Your task to perform on an android device: Open calendar and show me the third week of next month Image 0: 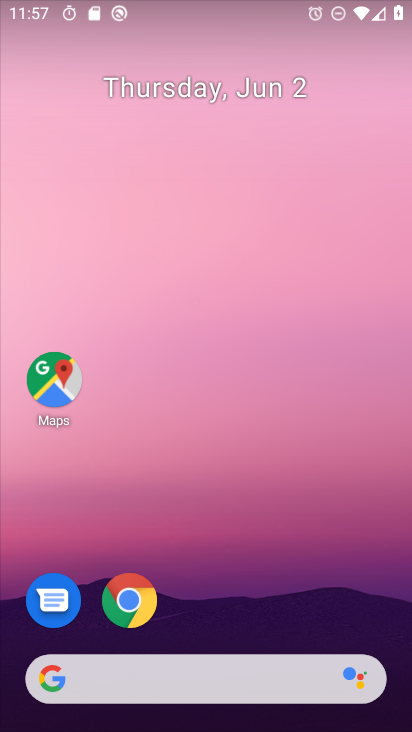
Step 0: drag from (246, 566) to (200, 96)
Your task to perform on an android device: Open calendar and show me the third week of next month Image 1: 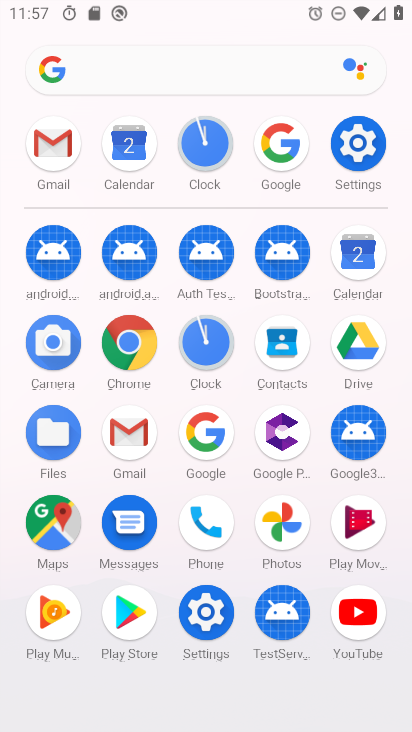
Step 1: click (350, 268)
Your task to perform on an android device: Open calendar and show me the third week of next month Image 2: 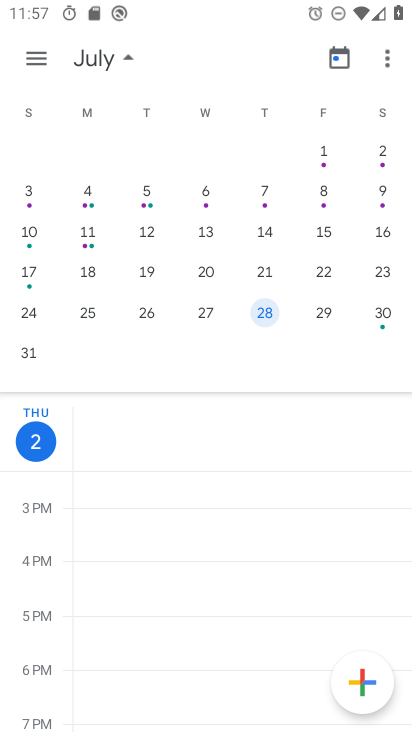
Step 2: drag from (329, 355) to (40, 324)
Your task to perform on an android device: Open calendar and show me the third week of next month Image 3: 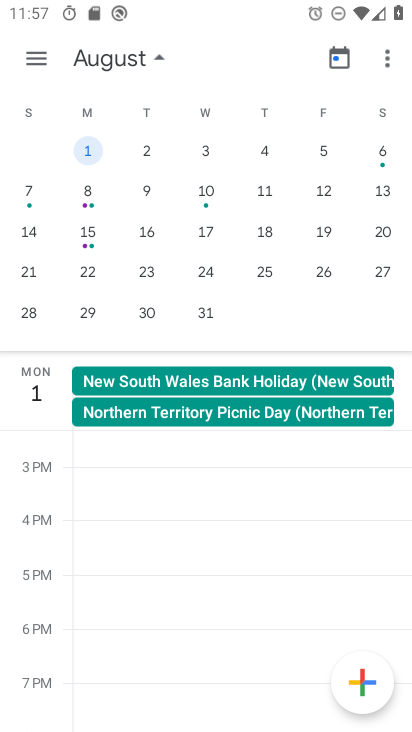
Step 3: drag from (58, 313) to (399, 300)
Your task to perform on an android device: Open calendar and show me the third week of next month Image 4: 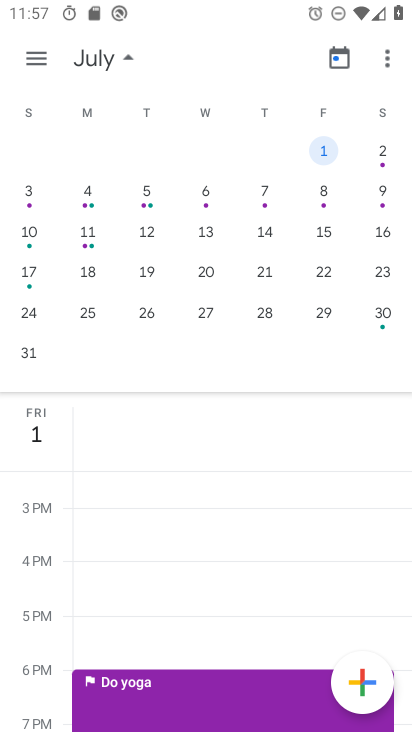
Step 4: click (151, 268)
Your task to perform on an android device: Open calendar and show me the third week of next month Image 5: 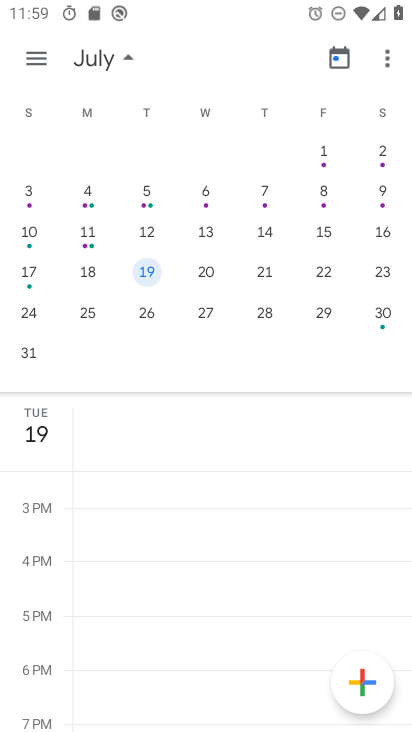
Step 5: task complete